Your task to perform on an android device: Turn off the flashlight Image 0: 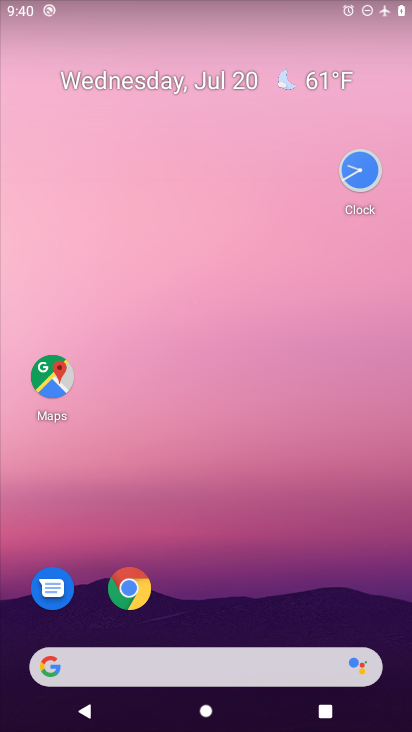
Step 0: drag from (32, 692) to (204, 168)
Your task to perform on an android device: Turn off the flashlight Image 1: 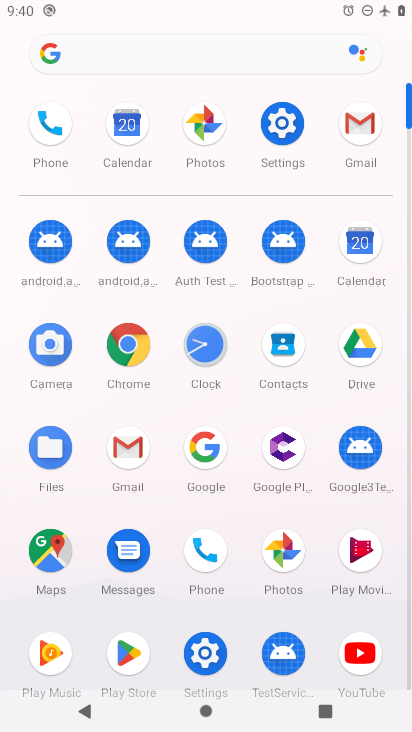
Step 1: click (212, 665)
Your task to perform on an android device: Turn off the flashlight Image 2: 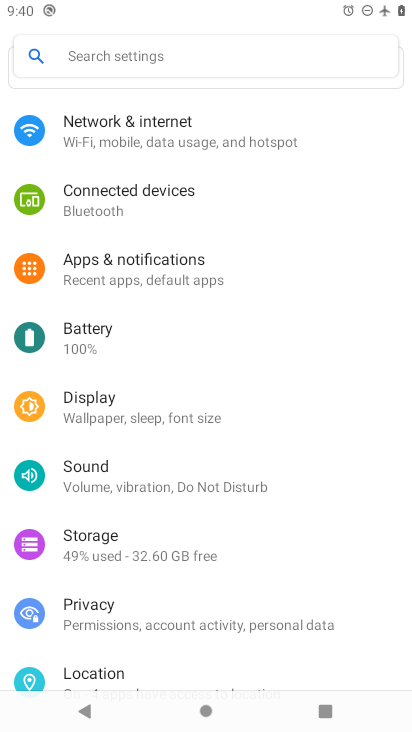
Step 2: task complete